Your task to perform on an android device: delete the emails in spam in the gmail app Image 0: 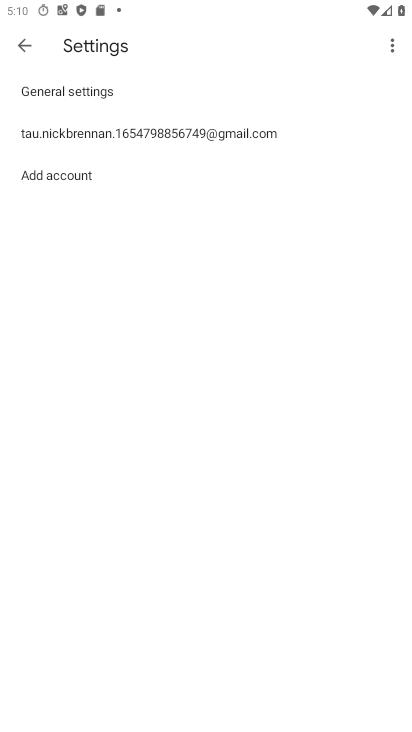
Step 0: press home button
Your task to perform on an android device: delete the emails in spam in the gmail app Image 1: 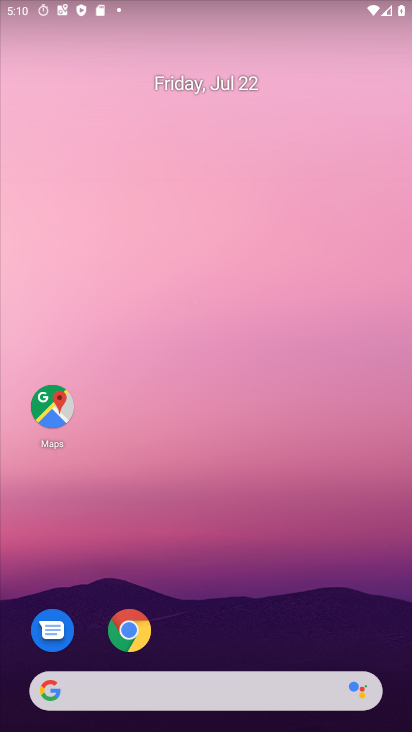
Step 1: drag from (208, 667) to (250, 169)
Your task to perform on an android device: delete the emails in spam in the gmail app Image 2: 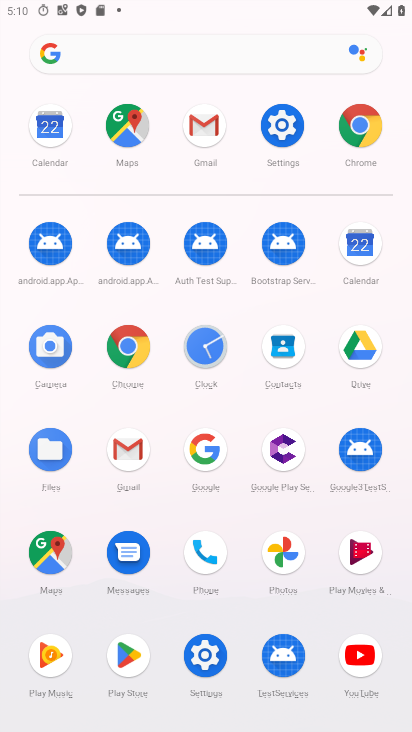
Step 2: click (124, 441)
Your task to perform on an android device: delete the emails in spam in the gmail app Image 3: 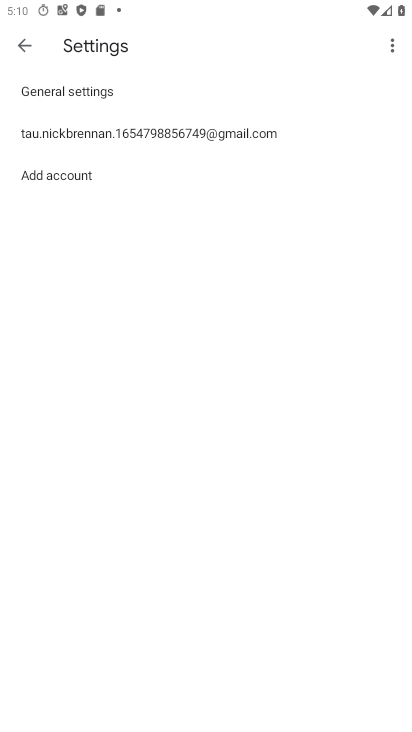
Step 3: press back button
Your task to perform on an android device: delete the emails in spam in the gmail app Image 4: 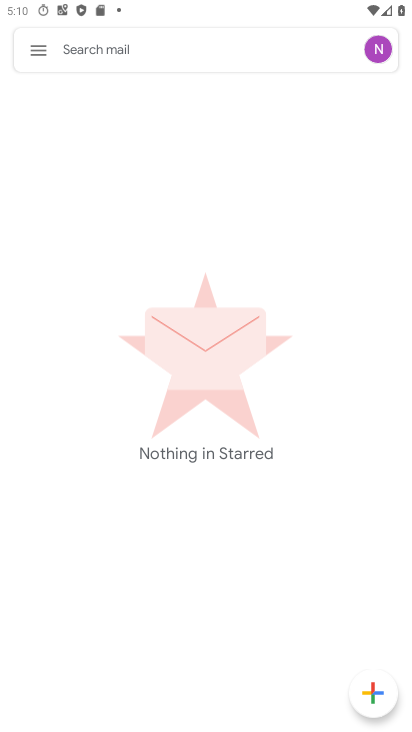
Step 4: click (35, 47)
Your task to perform on an android device: delete the emails in spam in the gmail app Image 5: 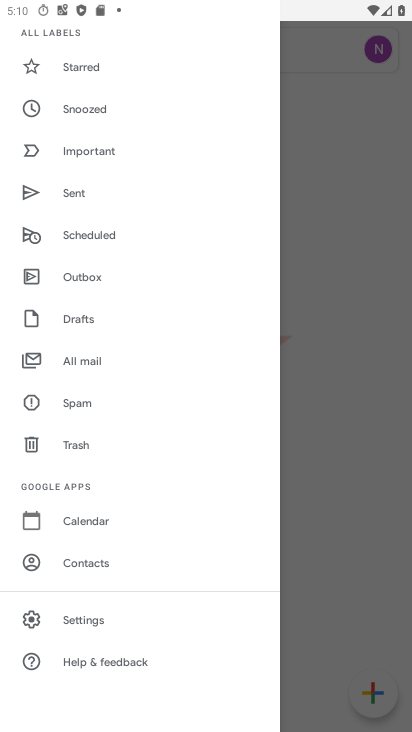
Step 5: drag from (78, 87) to (81, 298)
Your task to perform on an android device: delete the emails in spam in the gmail app Image 6: 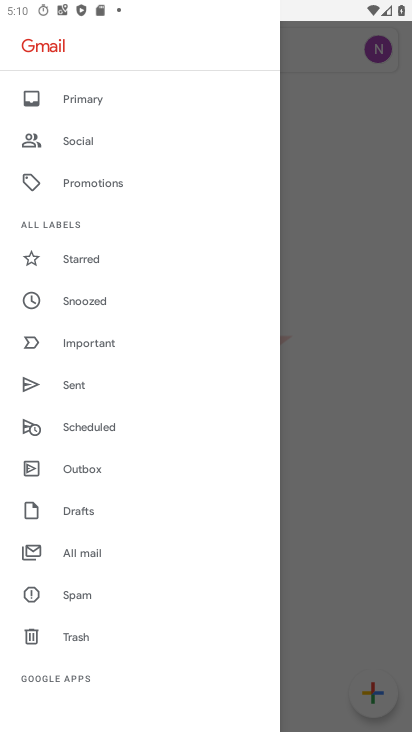
Step 6: drag from (119, 556) to (115, 226)
Your task to perform on an android device: delete the emails in spam in the gmail app Image 7: 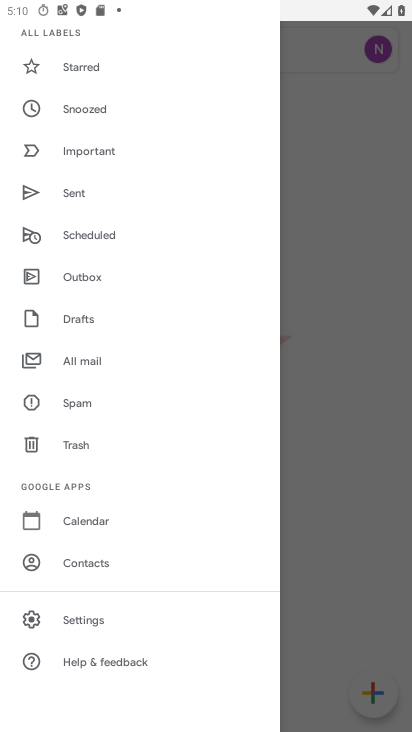
Step 7: click (99, 408)
Your task to perform on an android device: delete the emails in spam in the gmail app Image 8: 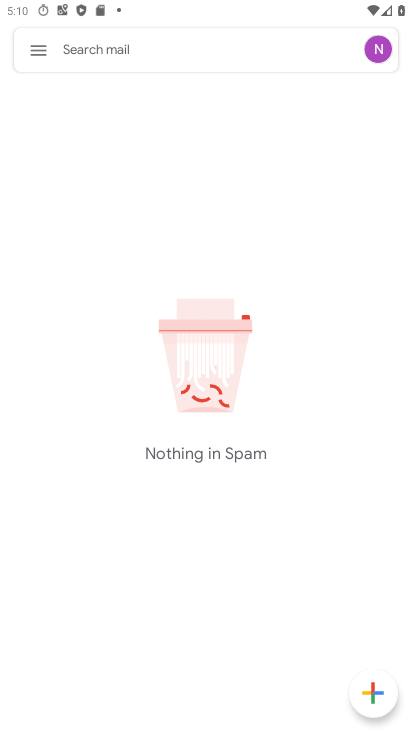
Step 8: task complete